Your task to perform on an android device: toggle notifications settings in the gmail app Image 0: 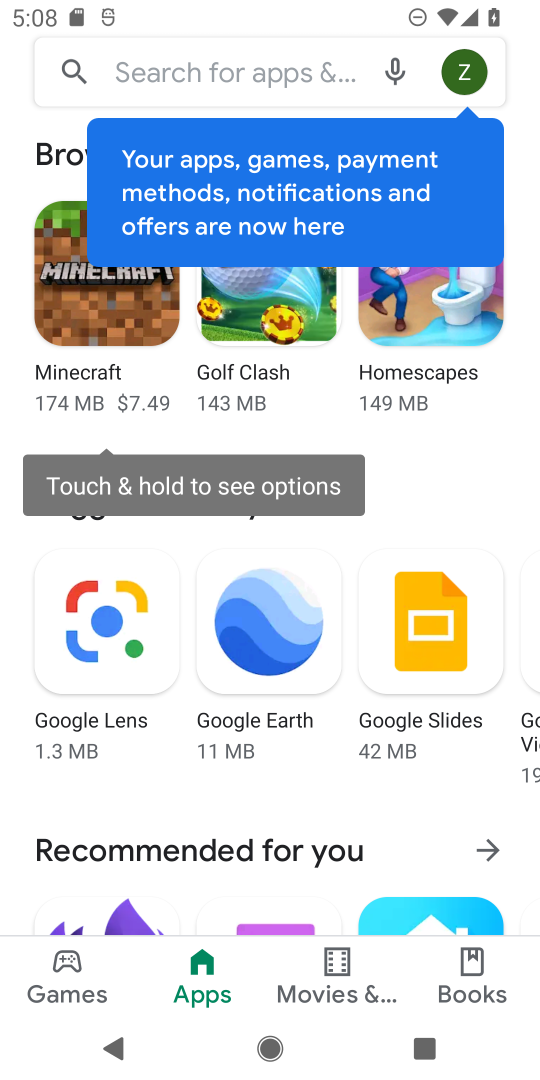
Step 0: press home button
Your task to perform on an android device: toggle notifications settings in the gmail app Image 1: 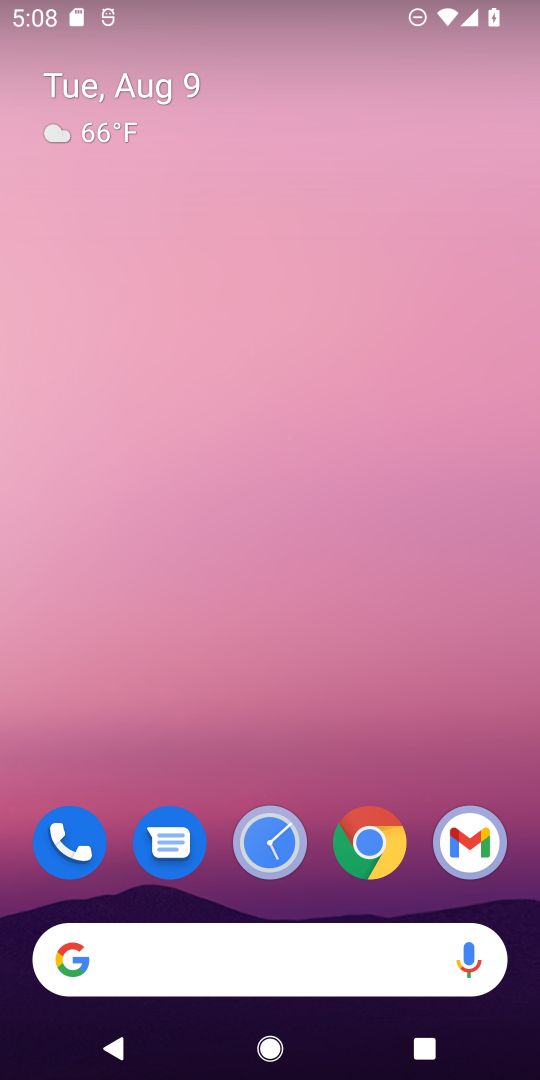
Step 1: drag from (398, 954) to (362, 270)
Your task to perform on an android device: toggle notifications settings in the gmail app Image 2: 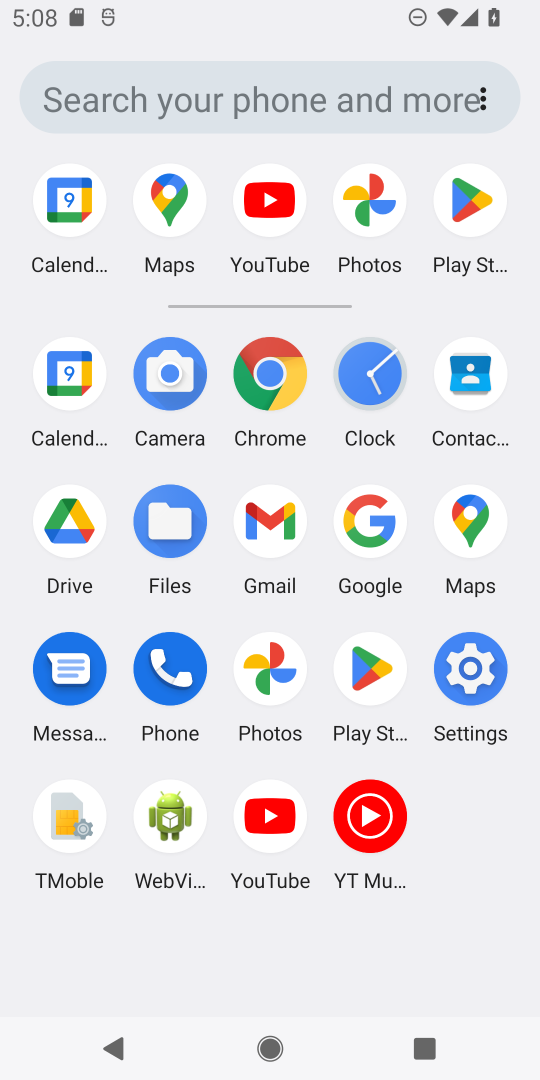
Step 2: click (285, 511)
Your task to perform on an android device: toggle notifications settings in the gmail app Image 3: 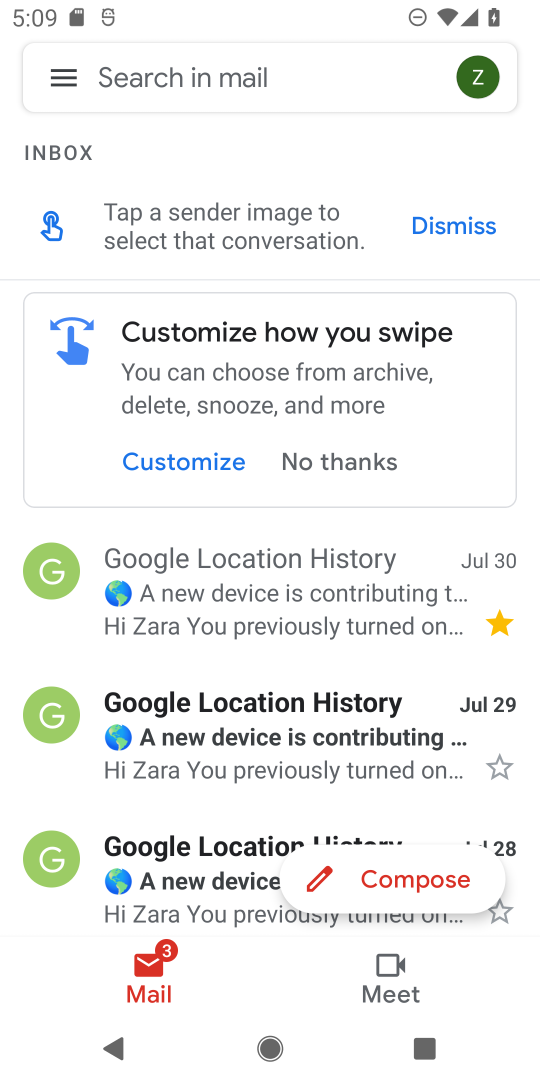
Step 3: click (46, 75)
Your task to perform on an android device: toggle notifications settings in the gmail app Image 4: 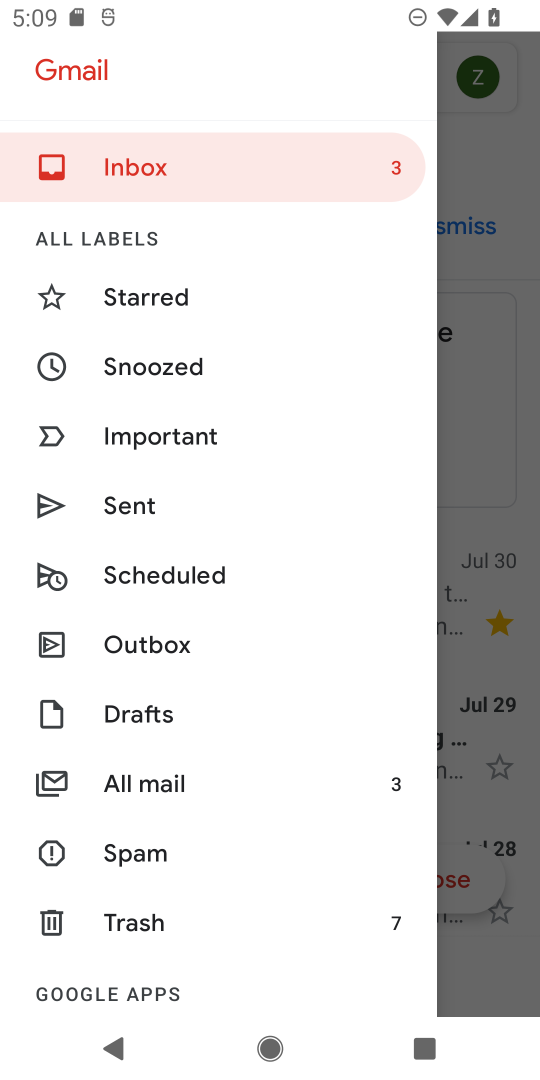
Step 4: drag from (315, 941) to (224, 178)
Your task to perform on an android device: toggle notifications settings in the gmail app Image 5: 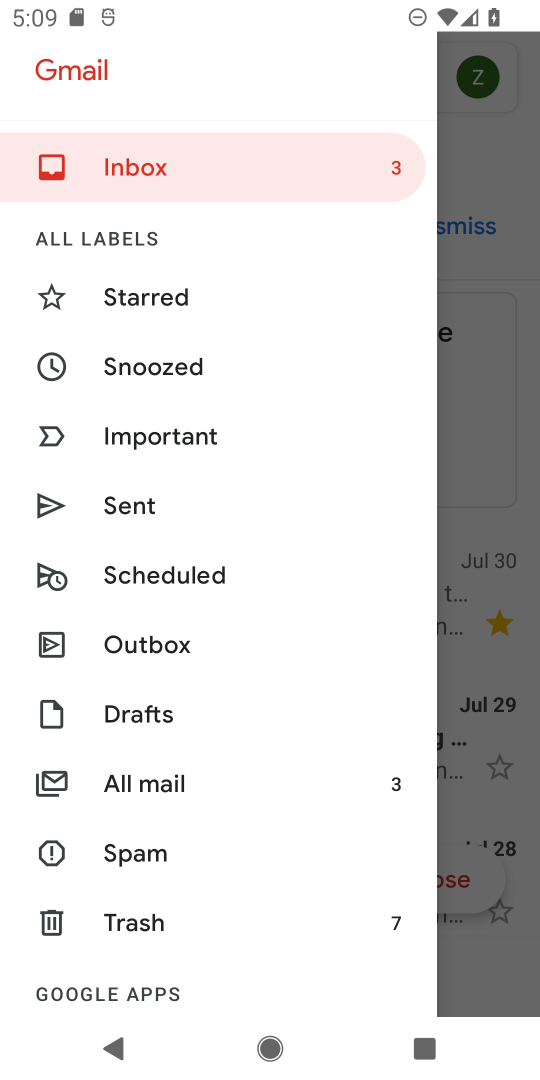
Step 5: drag from (314, 945) to (398, 246)
Your task to perform on an android device: toggle notifications settings in the gmail app Image 6: 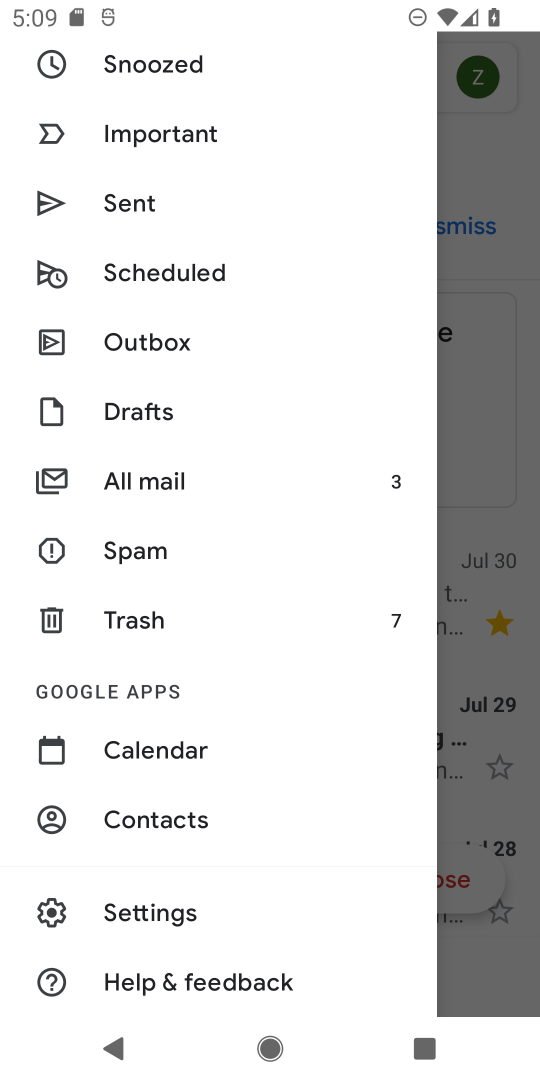
Step 6: click (150, 912)
Your task to perform on an android device: toggle notifications settings in the gmail app Image 7: 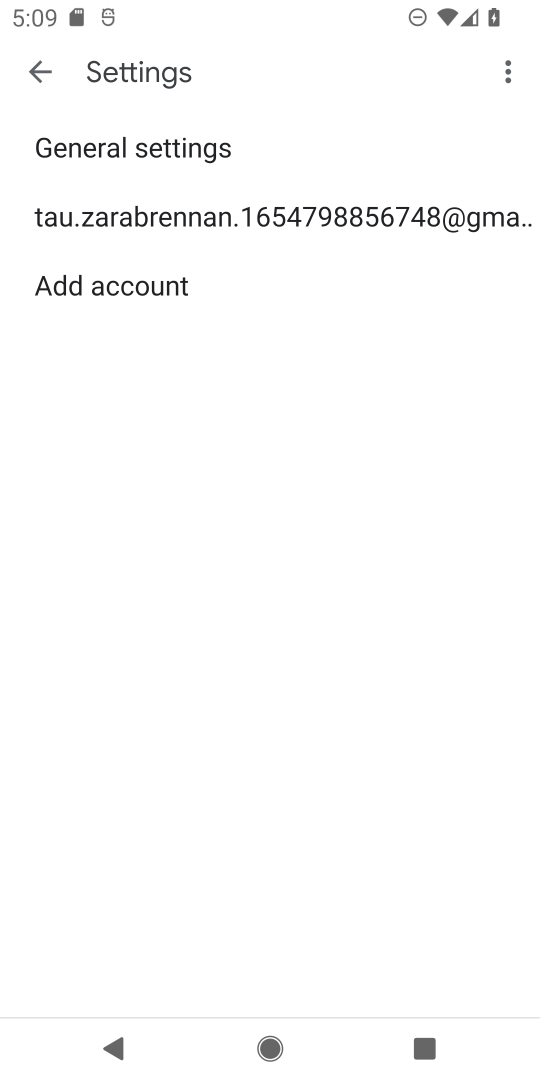
Step 7: click (346, 224)
Your task to perform on an android device: toggle notifications settings in the gmail app Image 8: 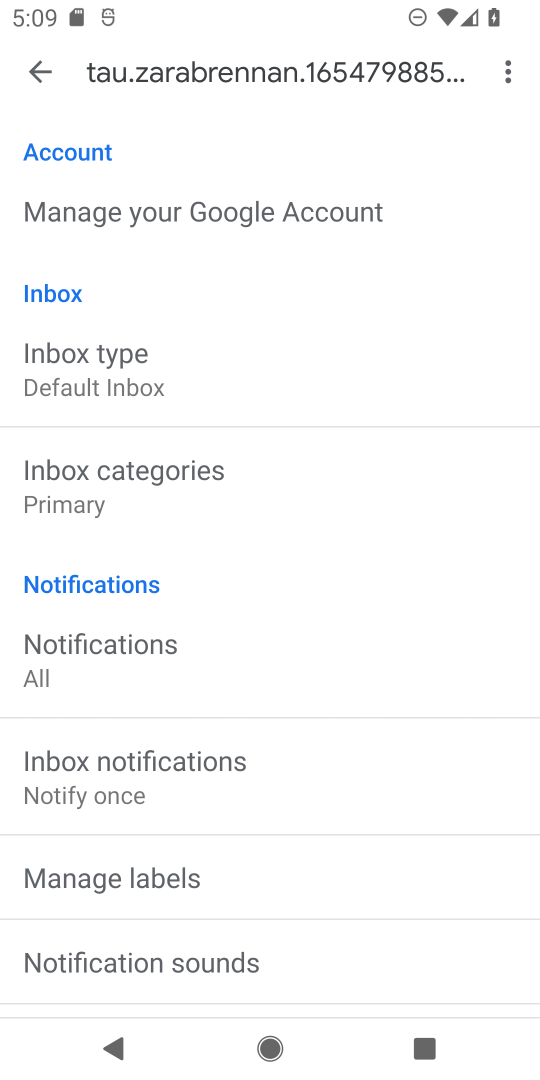
Step 8: click (422, 966)
Your task to perform on an android device: toggle notifications settings in the gmail app Image 9: 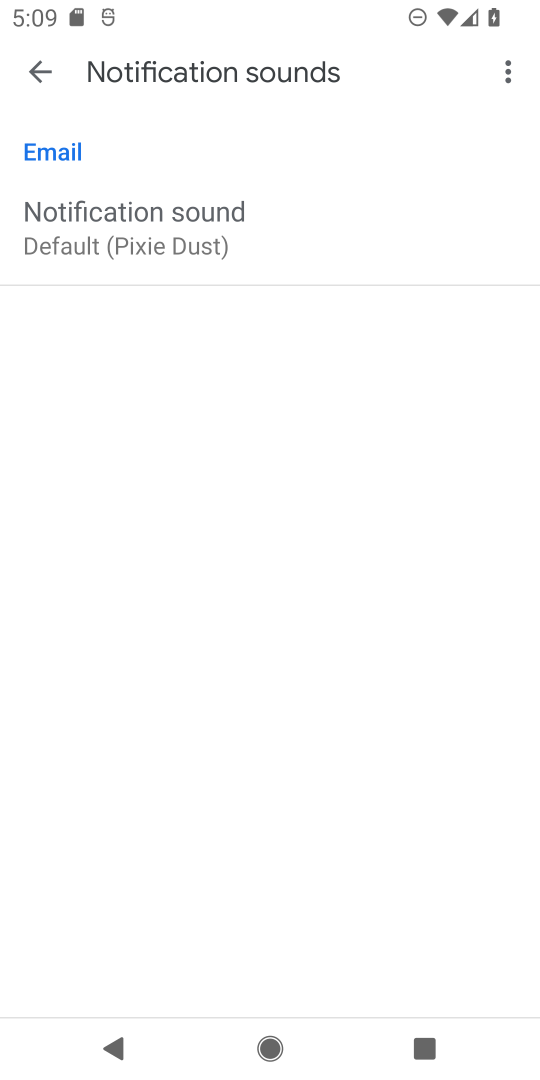
Step 9: press back button
Your task to perform on an android device: toggle notifications settings in the gmail app Image 10: 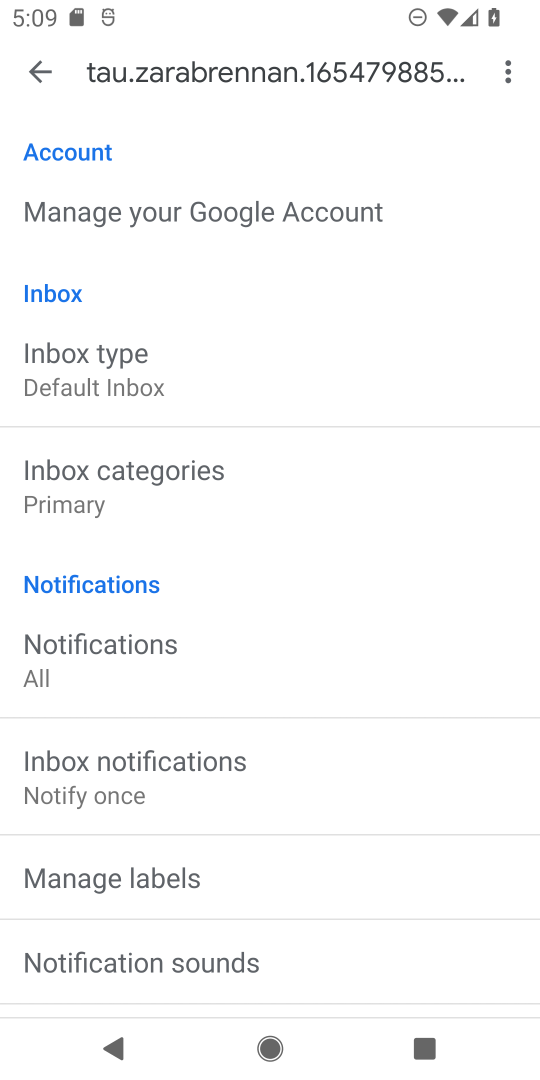
Step 10: drag from (406, 878) to (402, 473)
Your task to perform on an android device: toggle notifications settings in the gmail app Image 11: 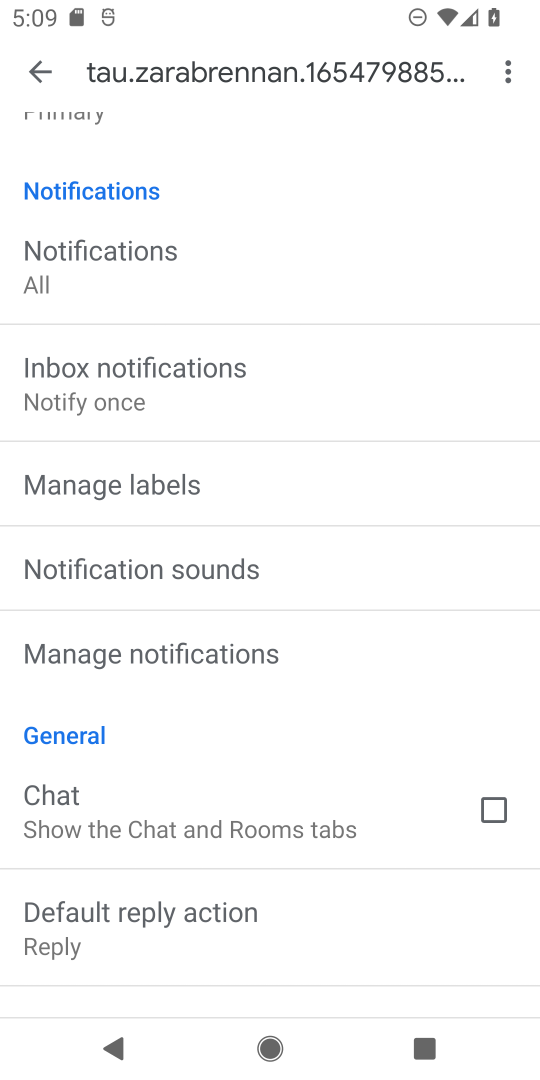
Step 11: click (300, 654)
Your task to perform on an android device: toggle notifications settings in the gmail app Image 12: 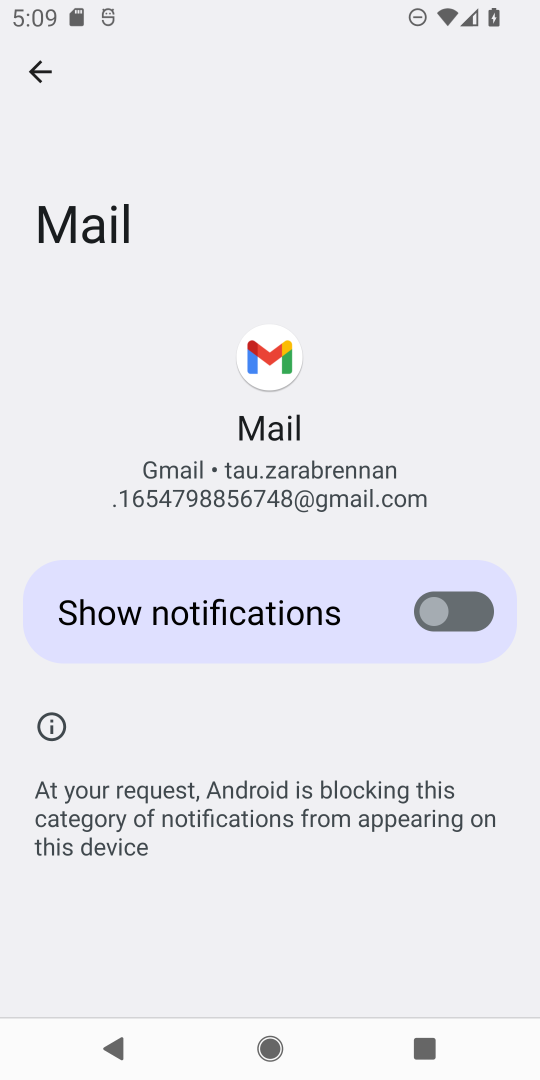
Step 12: click (461, 609)
Your task to perform on an android device: toggle notifications settings in the gmail app Image 13: 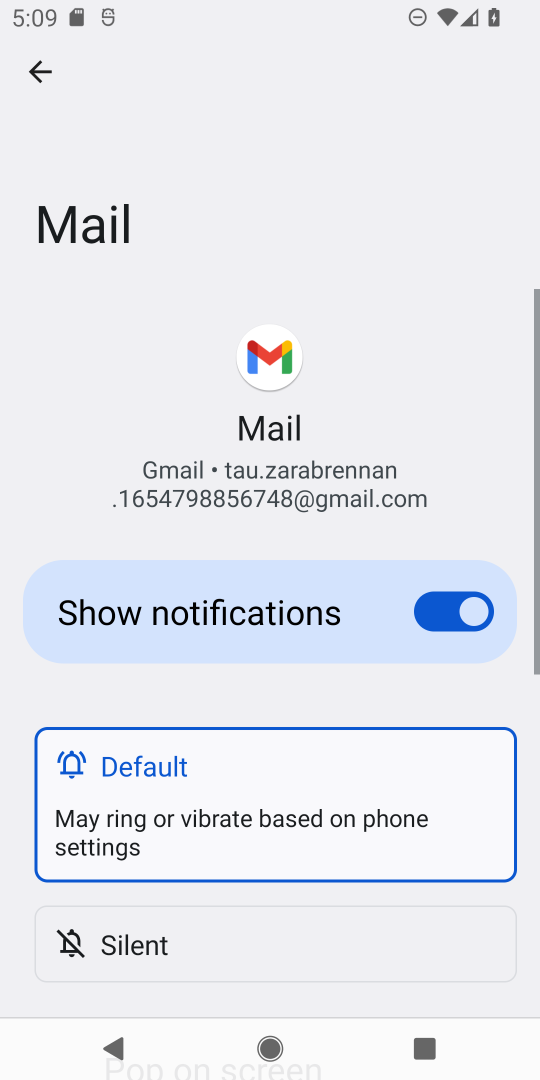
Step 13: task complete